Your task to perform on an android device: create a new album in the google photos Image 0: 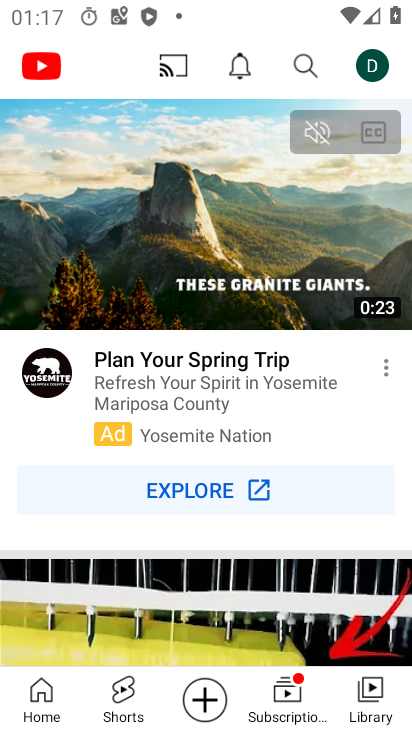
Step 0: press home button
Your task to perform on an android device: create a new album in the google photos Image 1: 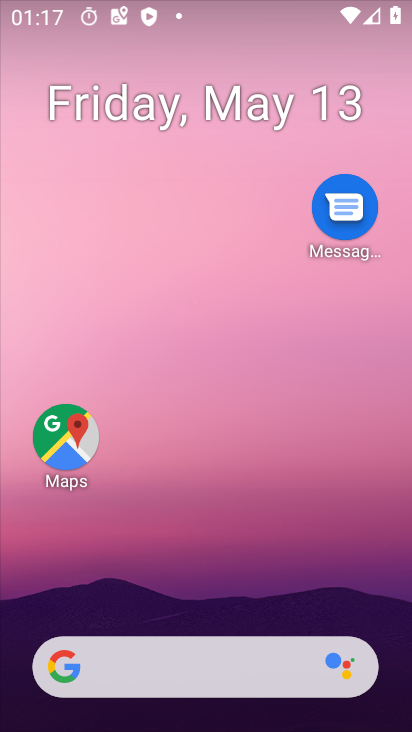
Step 1: drag from (283, 499) to (269, 14)
Your task to perform on an android device: create a new album in the google photos Image 2: 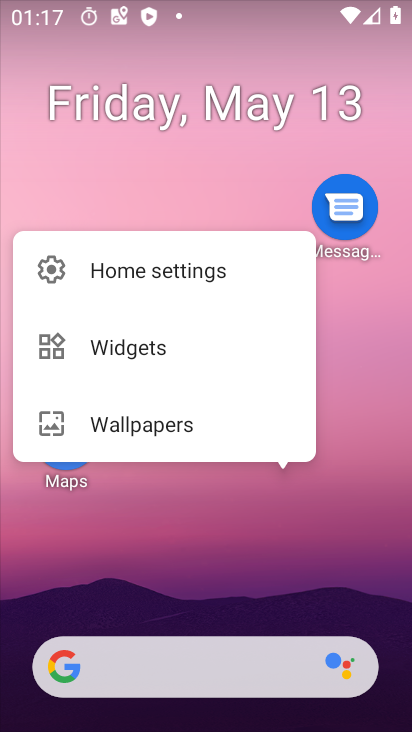
Step 2: click (289, 562)
Your task to perform on an android device: create a new album in the google photos Image 3: 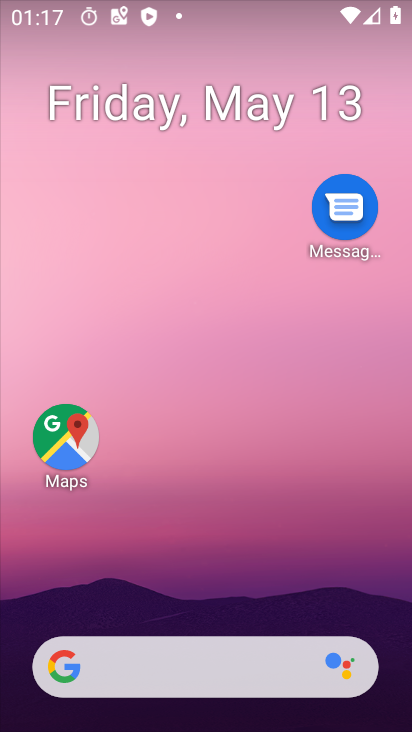
Step 3: drag from (236, 558) to (407, 627)
Your task to perform on an android device: create a new album in the google photos Image 4: 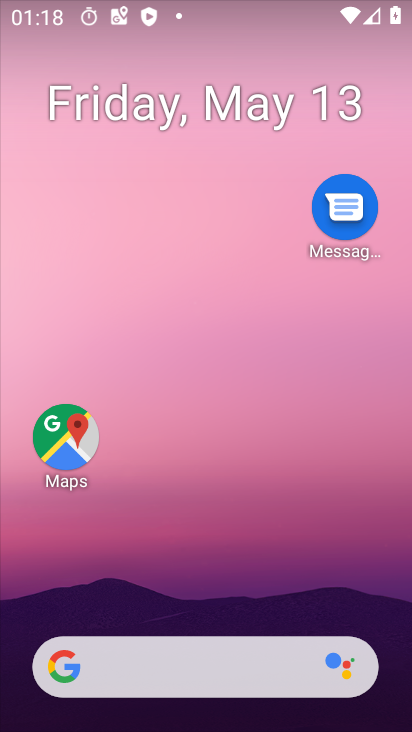
Step 4: drag from (290, 607) to (242, 143)
Your task to perform on an android device: create a new album in the google photos Image 5: 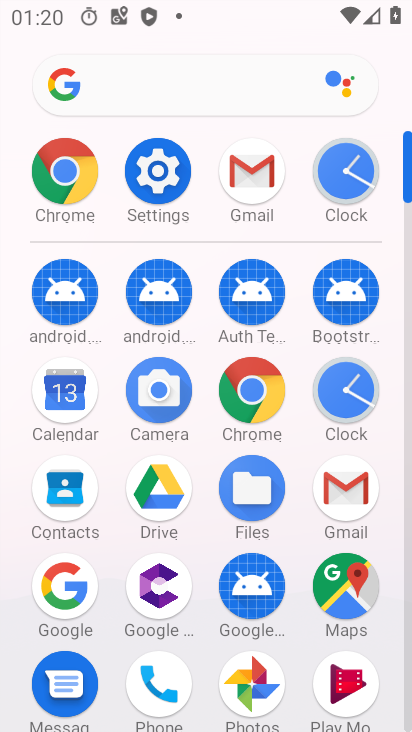
Step 5: click (411, 627)
Your task to perform on an android device: create a new album in the google photos Image 6: 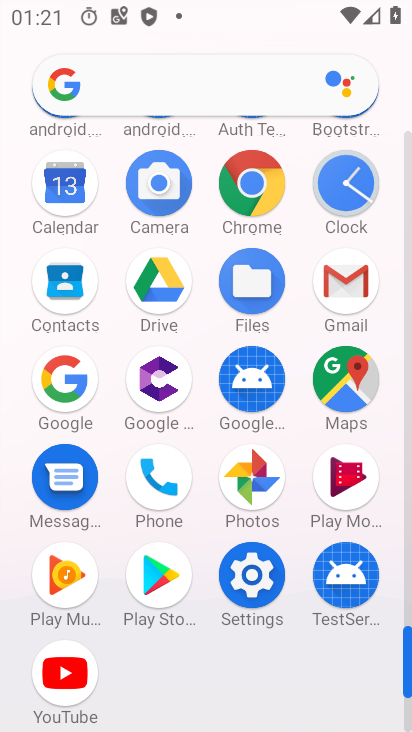
Step 6: click (248, 89)
Your task to perform on an android device: create a new album in the google photos Image 7: 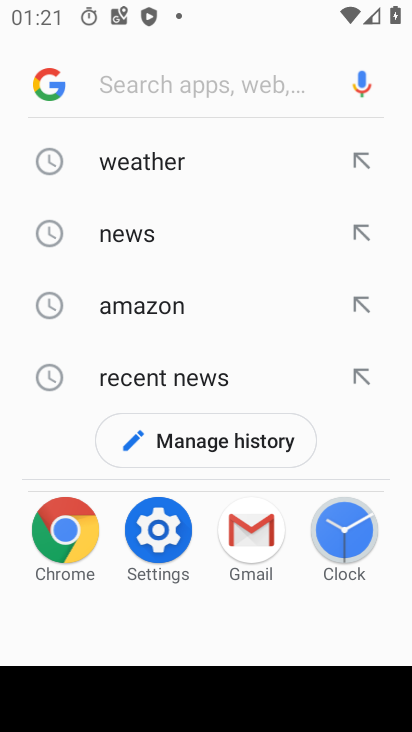
Step 7: press home button
Your task to perform on an android device: create a new album in the google photos Image 8: 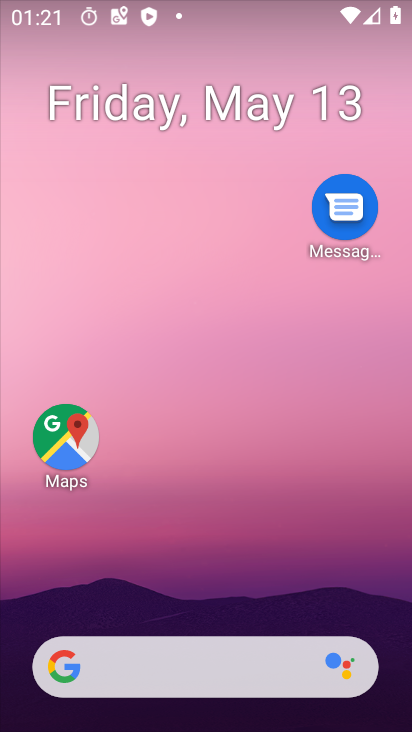
Step 8: drag from (277, 625) to (278, 0)
Your task to perform on an android device: create a new album in the google photos Image 9: 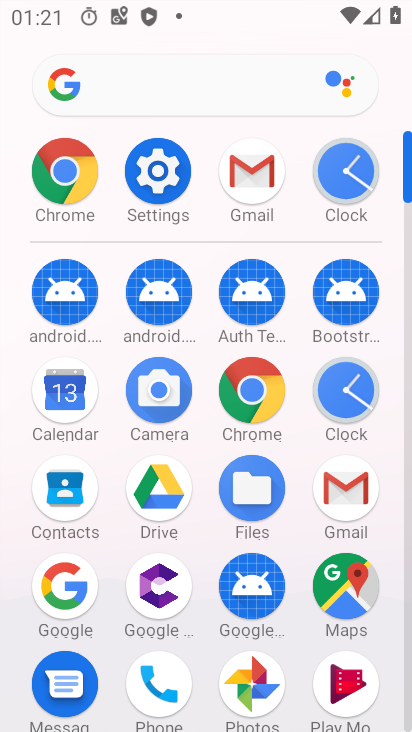
Step 9: click (405, 656)
Your task to perform on an android device: create a new album in the google photos Image 10: 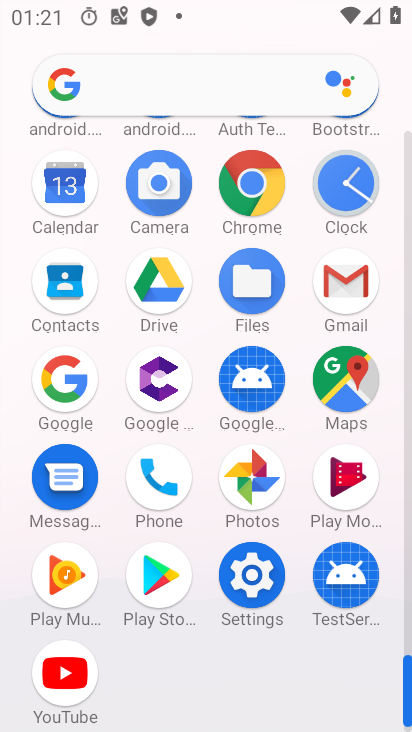
Step 10: click (266, 490)
Your task to perform on an android device: create a new album in the google photos Image 11: 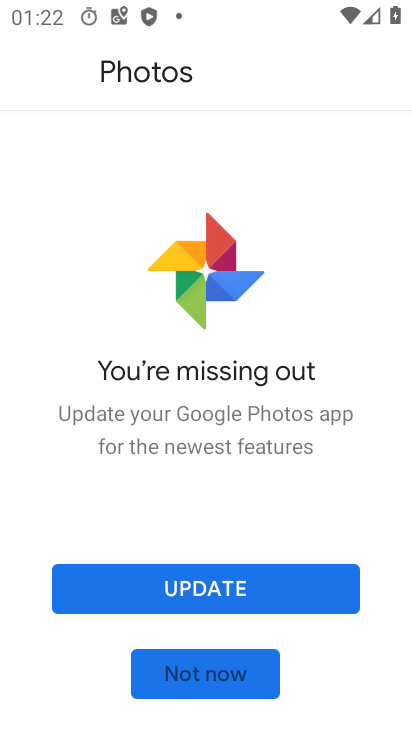
Step 11: click (305, 573)
Your task to perform on an android device: create a new album in the google photos Image 12: 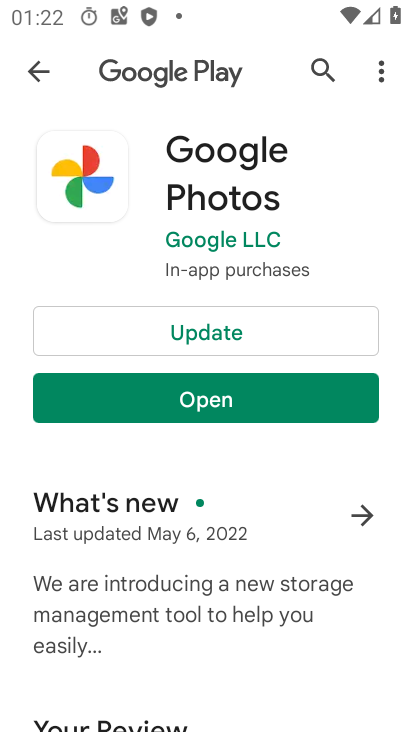
Step 12: click (258, 318)
Your task to perform on an android device: create a new album in the google photos Image 13: 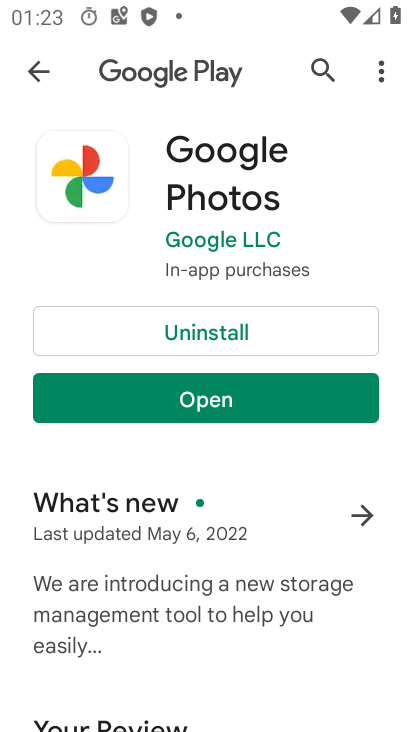
Step 13: click (348, 383)
Your task to perform on an android device: create a new album in the google photos Image 14: 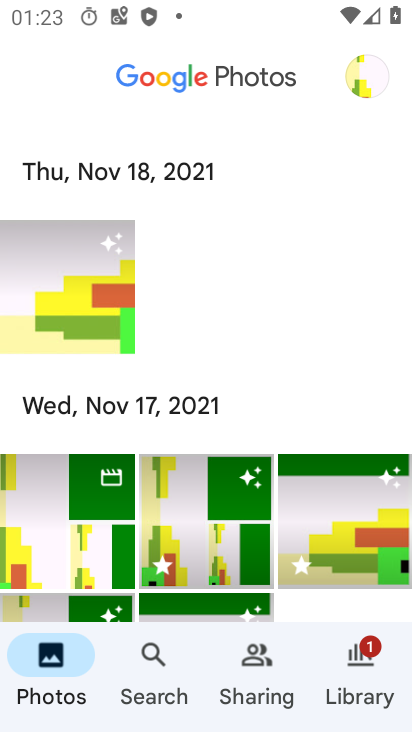
Step 14: press home button
Your task to perform on an android device: create a new album in the google photos Image 15: 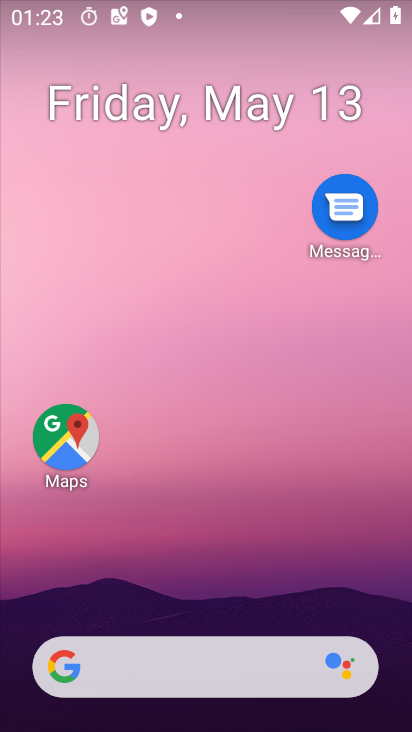
Step 15: drag from (318, 536) to (333, 112)
Your task to perform on an android device: create a new album in the google photos Image 16: 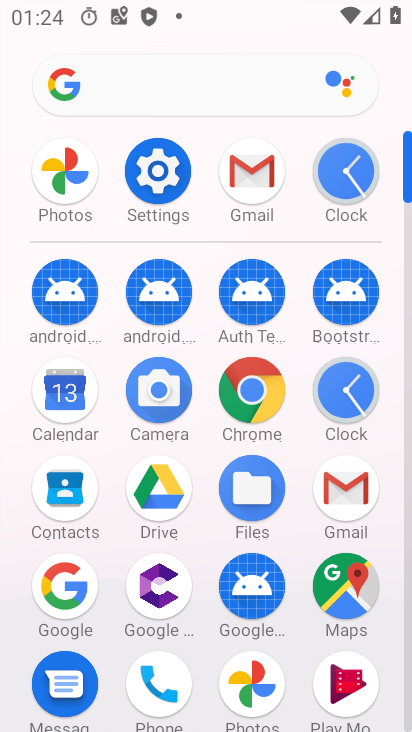
Step 16: click (252, 695)
Your task to perform on an android device: create a new album in the google photos Image 17: 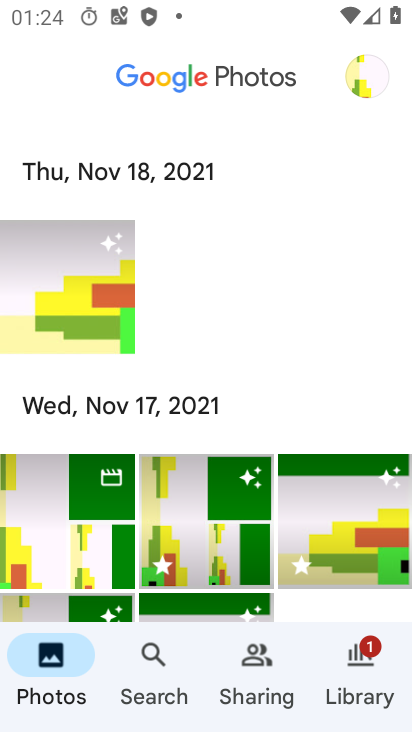
Step 17: click (41, 266)
Your task to perform on an android device: create a new album in the google photos Image 18: 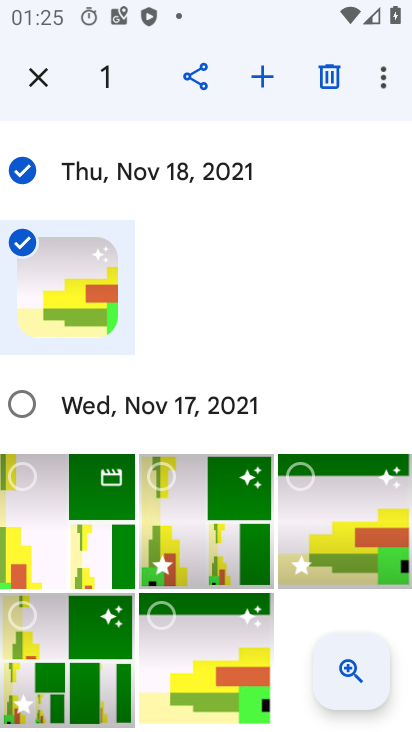
Step 18: click (253, 87)
Your task to perform on an android device: create a new album in the google photos Image 19: 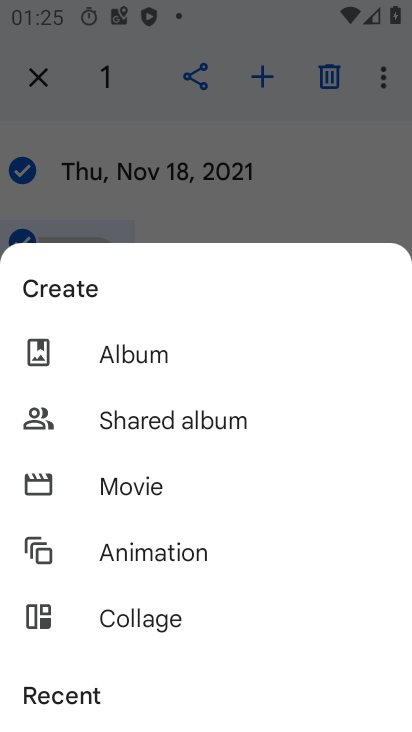
Step 19: click (181, 352)
Your task to perform on an android device: create a new album in the google photos Image 20: 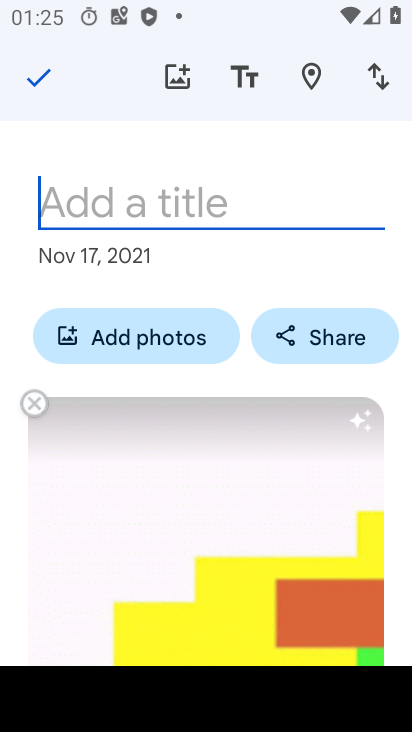
Step 20: click (257, 197)
Your task to perform on an android device: create a new album in the google photos Image 21: 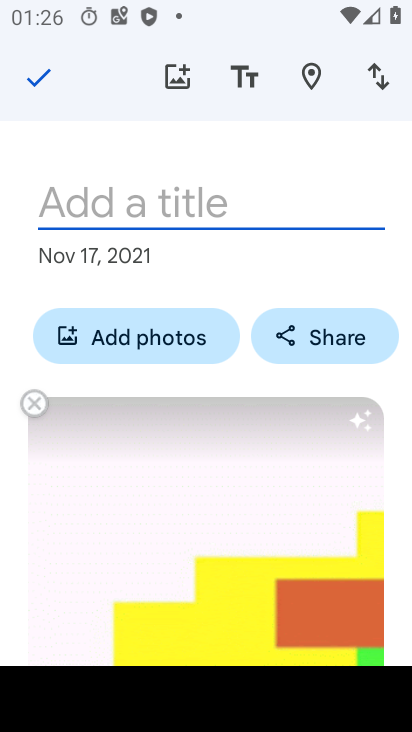
Step 21: type "dfghj"
Your task to perform on an android device: create a new album in the google photos Image 22: 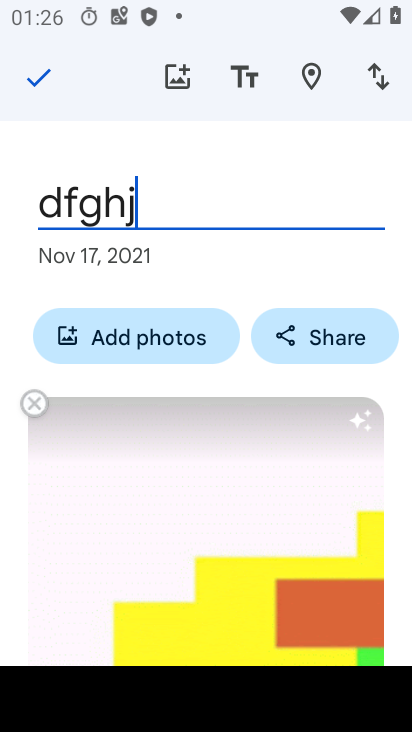
Step 22: click (36, 71)
Your task to perform on an android device: create a new album in the google photos Image 23: 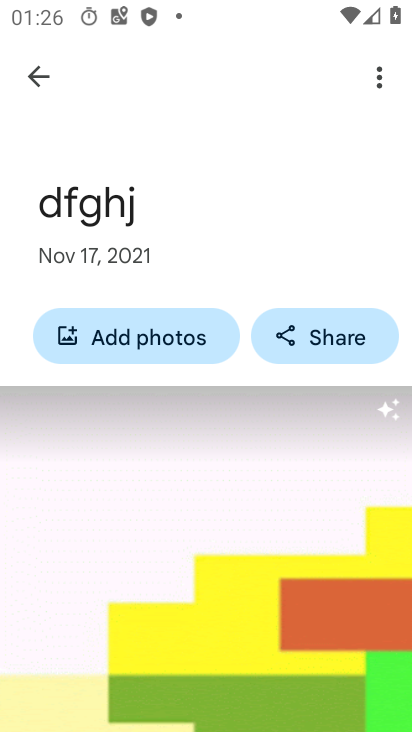
Step 23: task complete